Your task to perform on an android device: Open Yahoo.com Image 0: 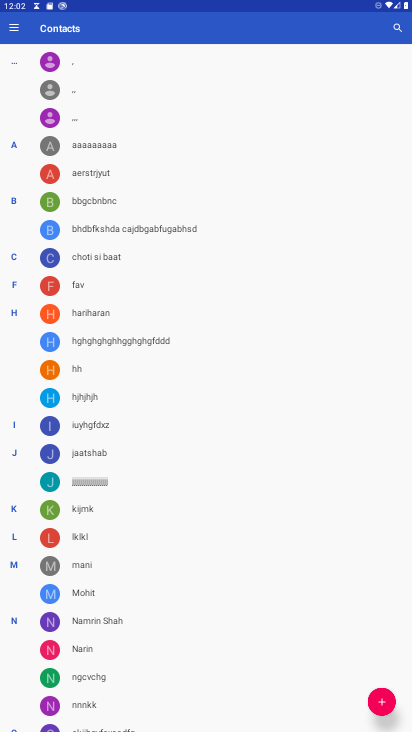
Step 0: press home button
Your task to perform on an android device: Open Yahoo.com Image 1: 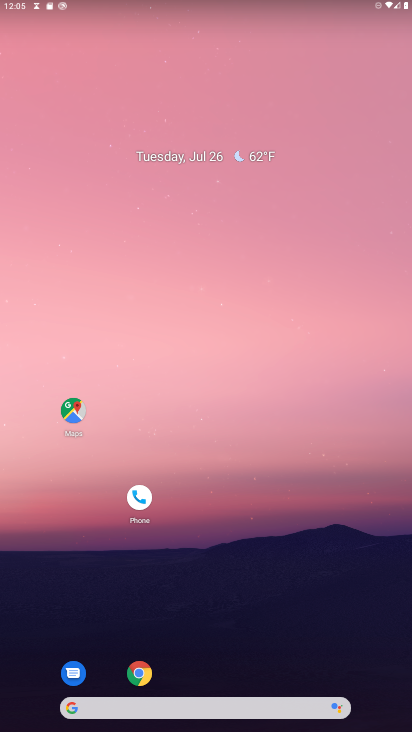
Step 1: click (70, 710)
Your task to perform on an android device: Open Yahoo.com Image 2: 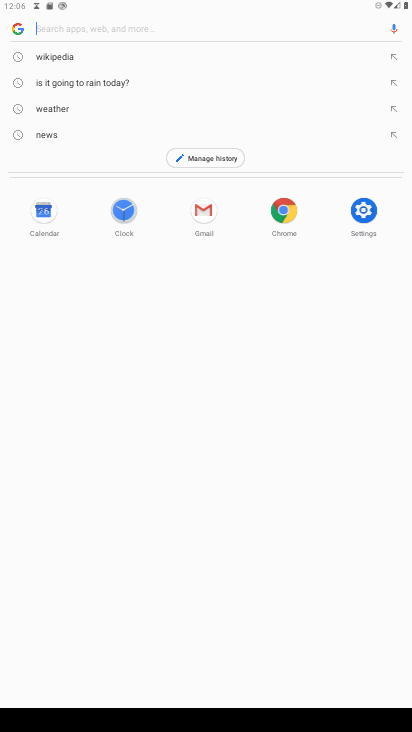
Step 2: press enter
Your task to perform on an android device: Open Yahoo.com Image 3: 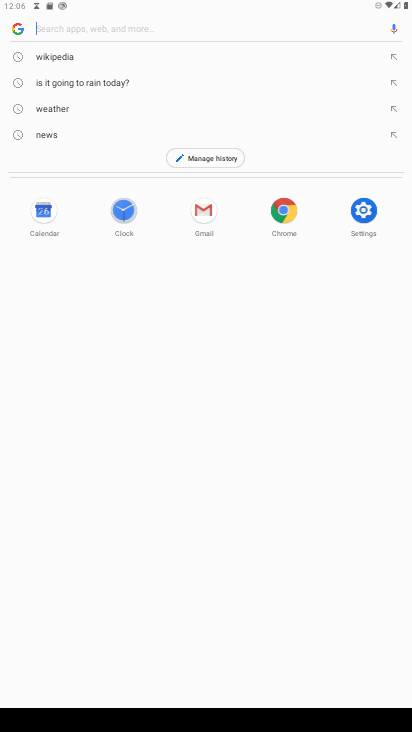
Step 3: type "Yahoo.com"
Your task to perform on an android device: Open Yahoo.com Image 4: 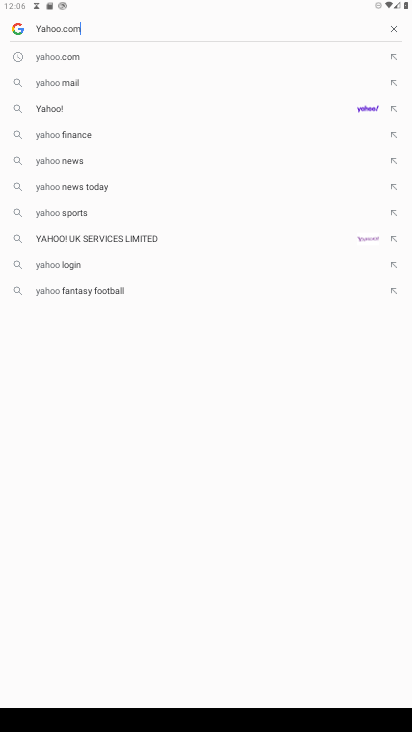
Step 4: press enter
Your task to perform on an android device: Open Yahoo.com Image 5: 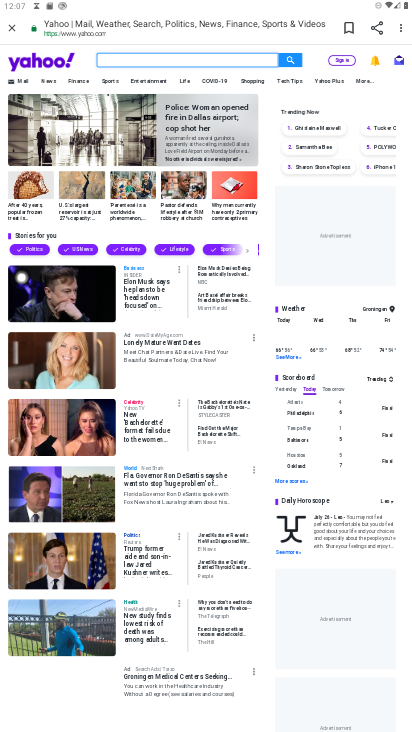
Step 5: task complete